Your task to perform on an android device: Go to internet settings Image 0: 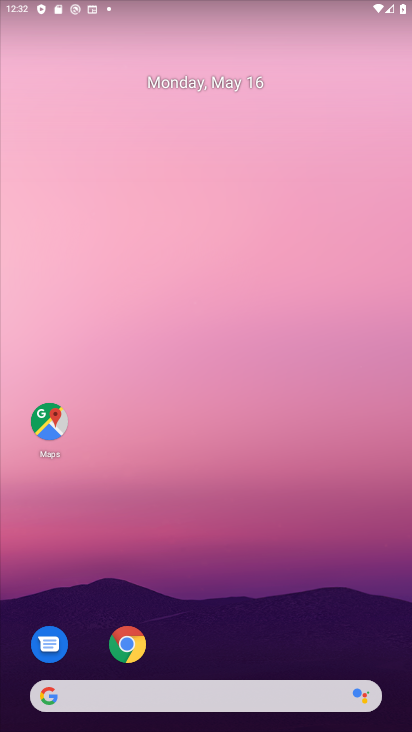
Step 0: drag from (176, 714) to (162, 404)
Your task to perform on an android device: Go to internet settings Image 1: 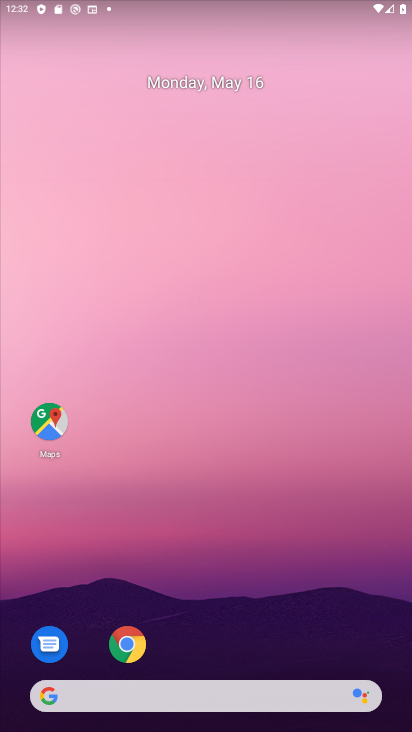
Step 1: click (220, 705)
Your task to perform on an android device: Go to internet settings Image 2: 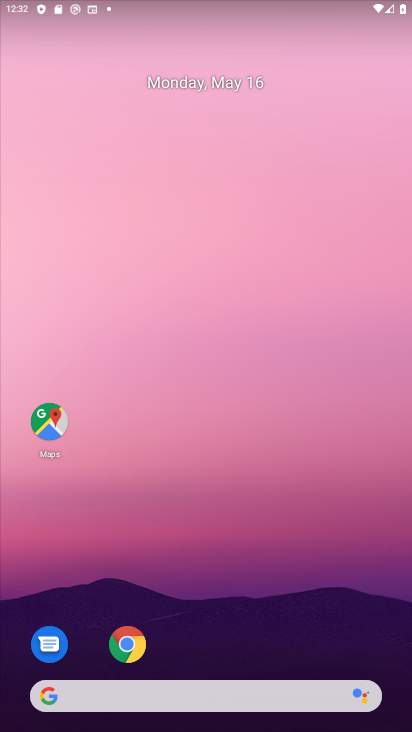
Step 2: drag from (218, 709) to (177, 306)
Your task to perform on an android device: Go to internet settings Image 3: 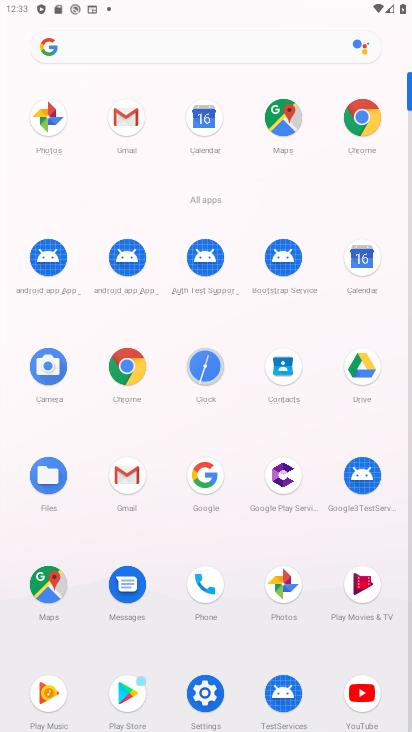
Step 3: drag from (216, 673) to (162, 193)
Your task to perform on an android device: Go to internet settings Image 4: 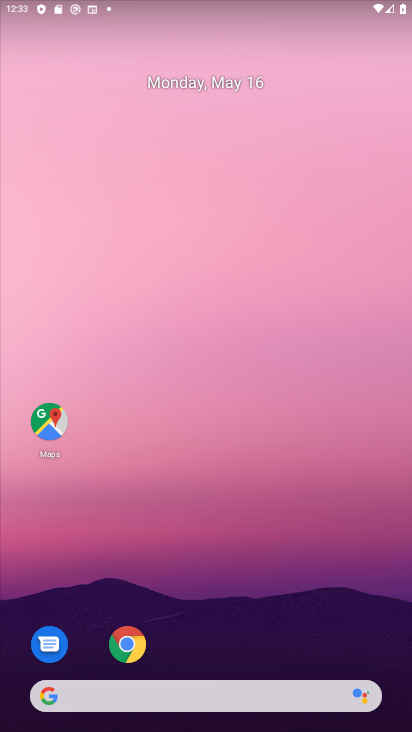
Step 4: drag from (234, 715) to (190, 298)
Your task to perform on an android device: Go to internet settings Image 5: 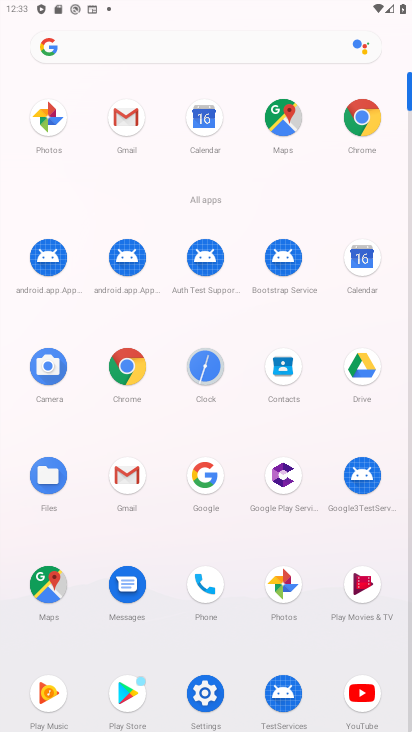
Step 5: click (208, 706)
Your task to perform on an android device: Go to internet settings Image 6: 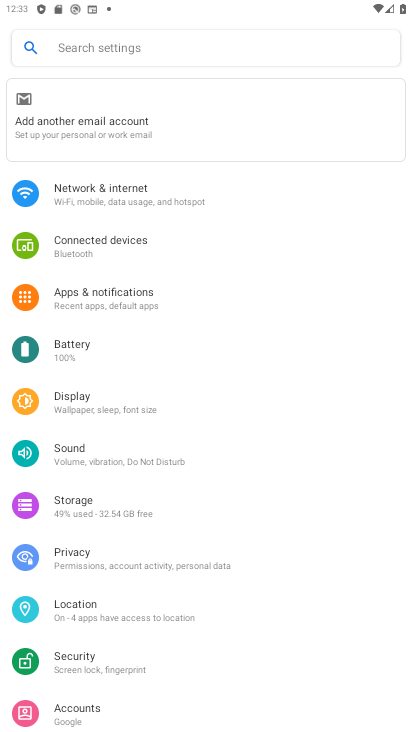
Step 6: click (103, 185)
Your task to perform on an android device: Go to internet settings Image 7: 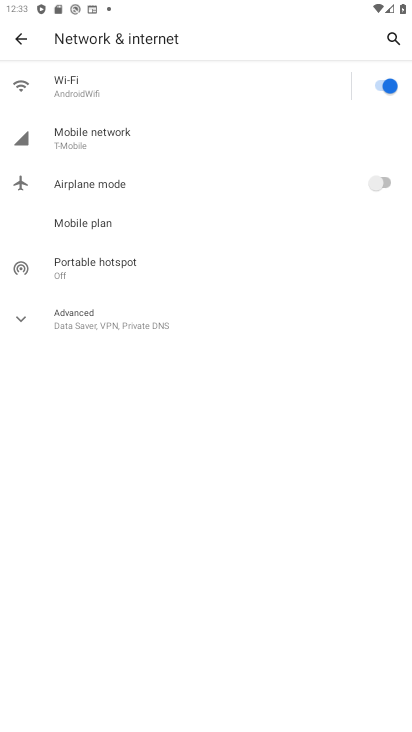
Step 7: task complete